Your task to perform on an android device: clear all cookies in the chrome app Image 0: 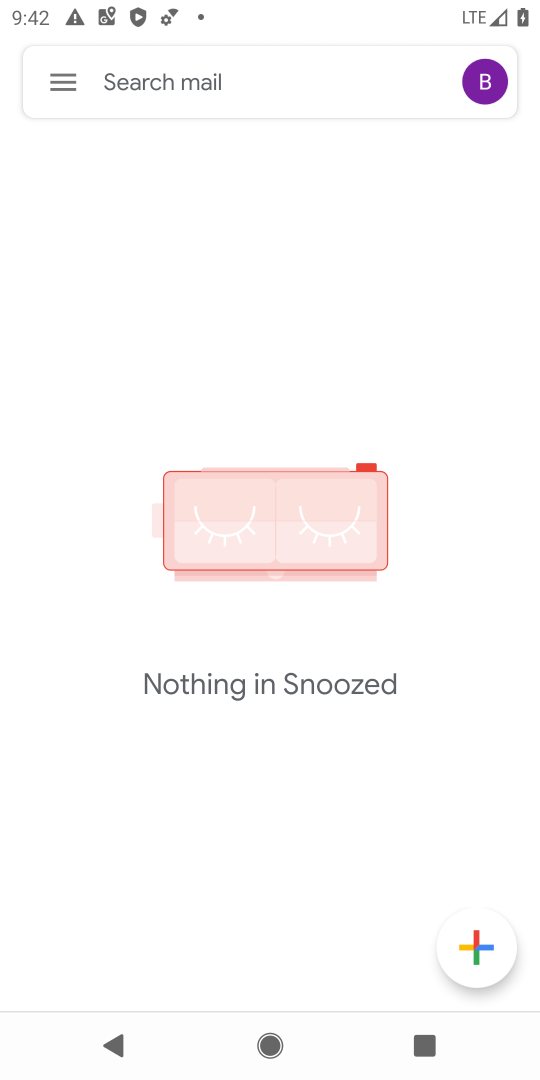
Step 0: press home button
Your task to perform on an android device: clear all cookies in the chrome app Image 1: 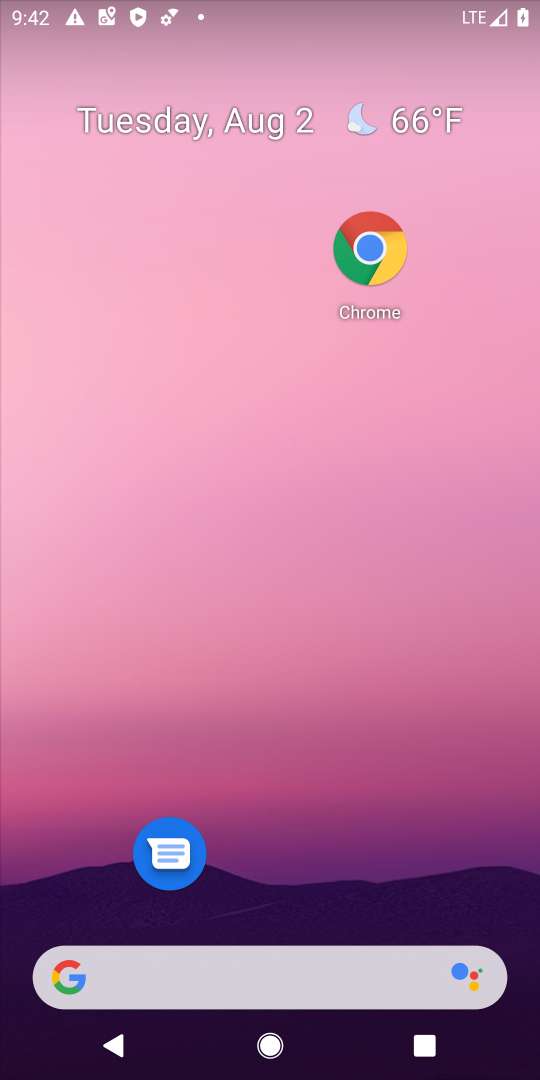
Step 1: drag from (290, 909) to (117, 99)
Your task to perform on an android device: clear all cookies in the chrome app Image 2: 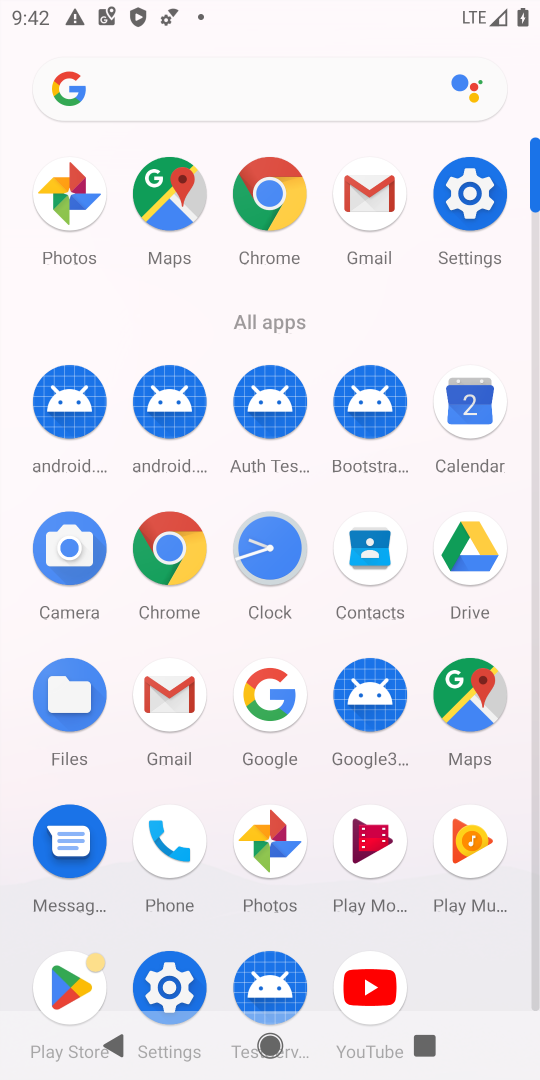
Step 2: click (279, 223)
Your task to perform on an android device: clear all cookies in the chrome app Image 3: 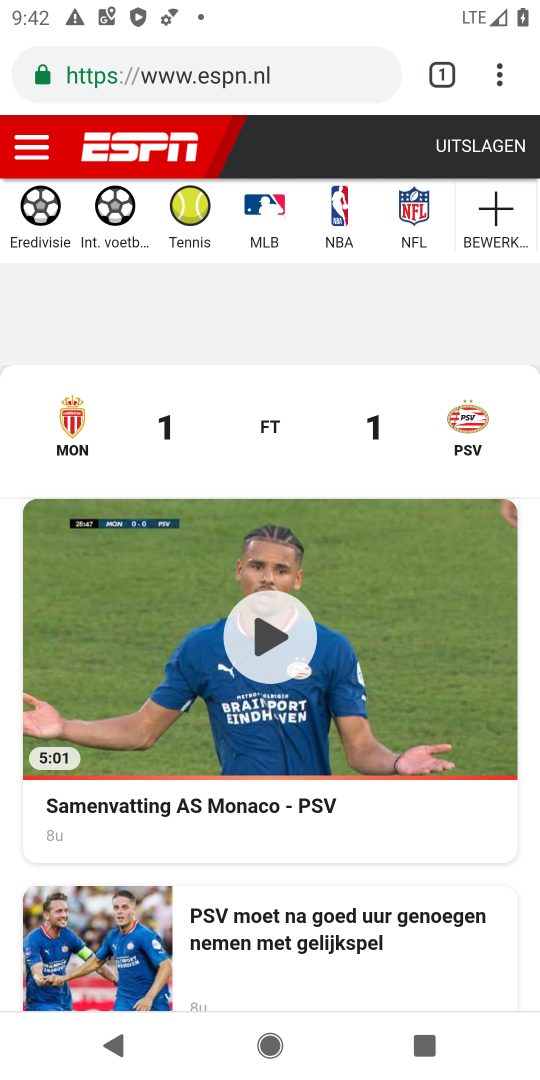
Step 3: drag from (504, 71) to (227, 409)
Your task to perform on an android device: clear all cookies in the chrome app Image 4: 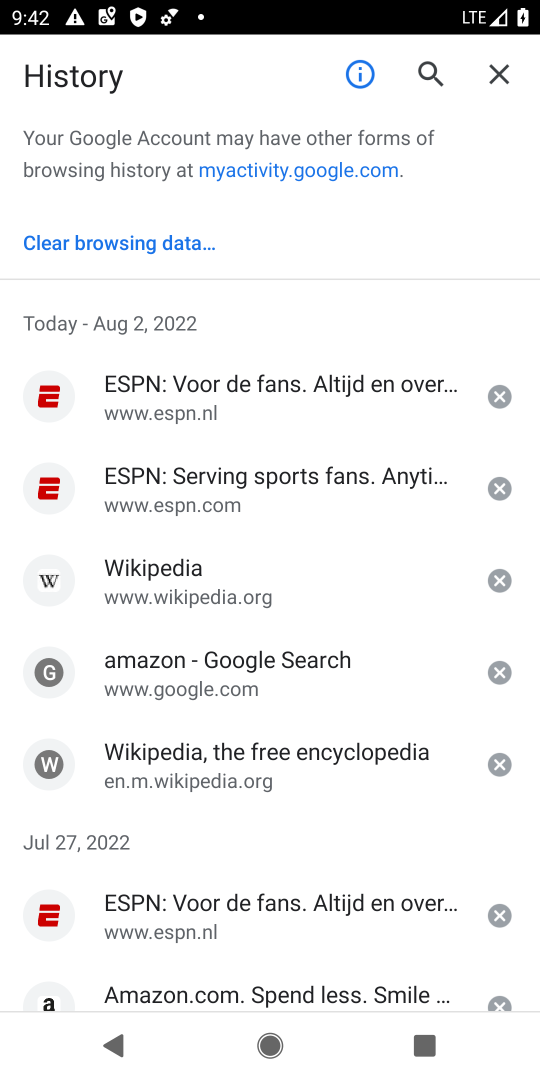
Step 4: click (124, 251)
Your task to perform on an android device: clear all cookies in the chrome app Image 5: 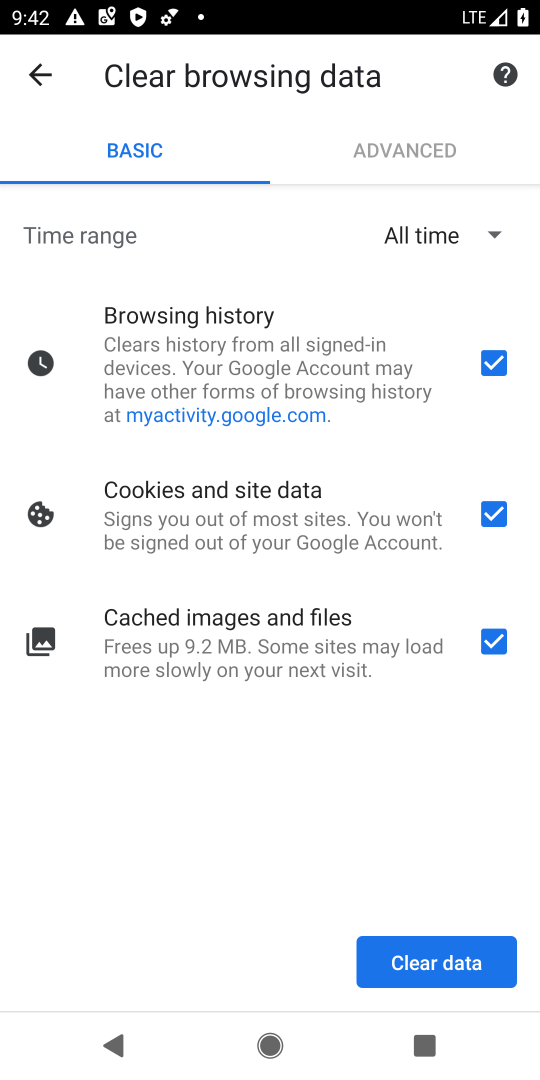
Step 5: click (466, 953)
Your task to perform on an android device: clear all cookies in the chrome app Image 6: 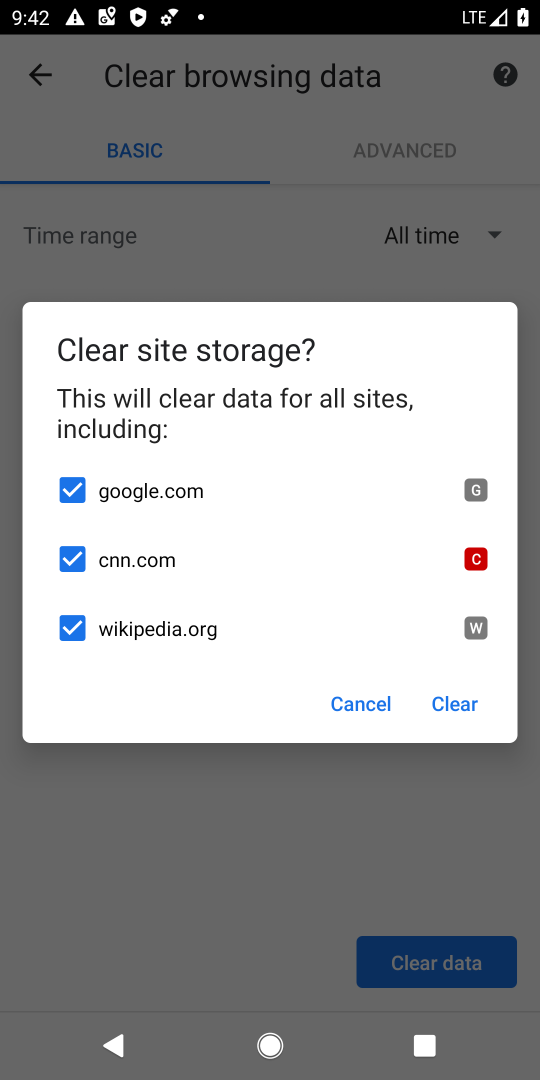
Step 6: click (469, 696)
Your task to perform on an android device: clear all cookies in the chrome app Image 7: 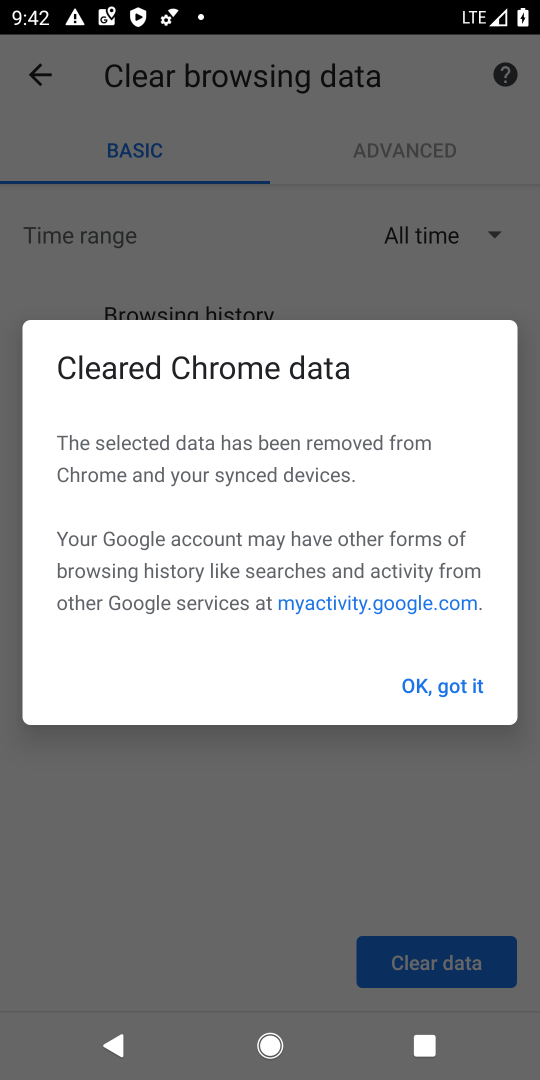
Step 7: click (433, 690)
Your task to perform on an android device: clear all cookies in the chrome app Image 8: 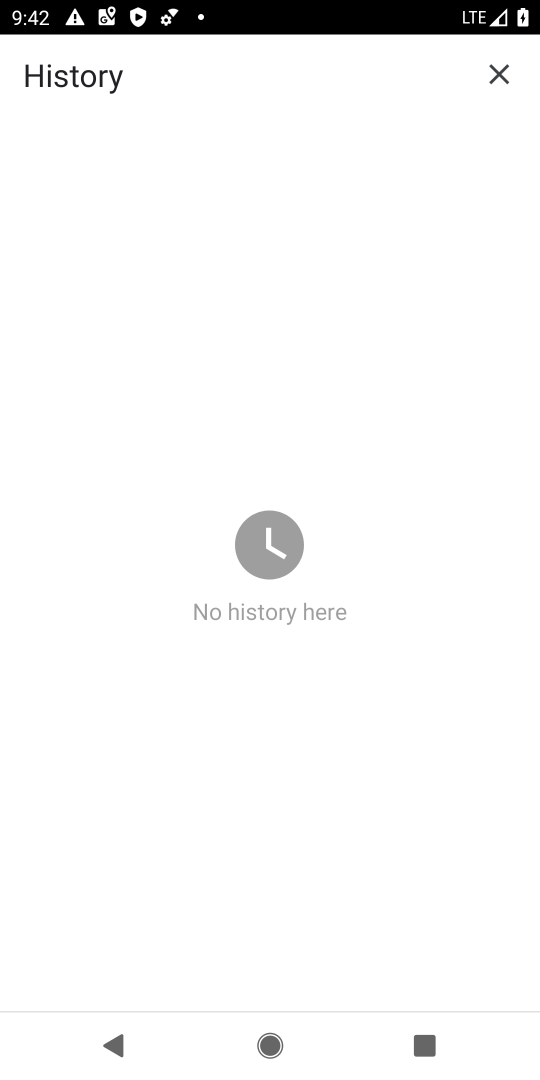
Step 8: task complete